Your task to perform on an android device: check the backup settings in the google photos Image 0: 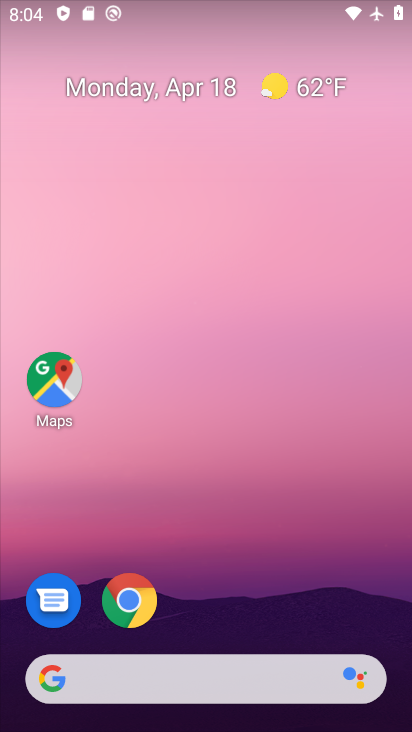
Step 0: drag from (220, 648) to (179, 90)
Your task to perform on an android device: check the backup settings in the google photos Image 1: 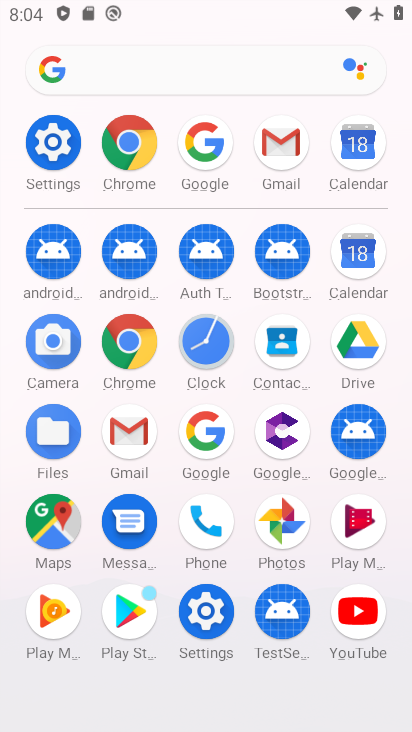
Step 1: click (271, 525)
Your task to perform on an android device: check the backup settings in the google photos Image 2: 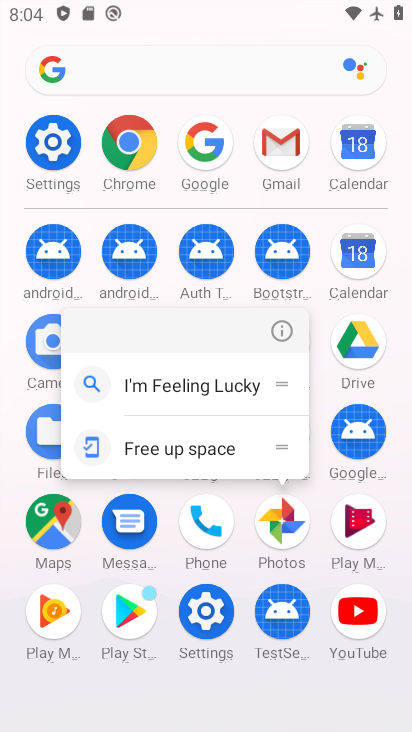
Step 2: click (274, 513)
Your task to perform on an android device: check the backup settings in the google photos Image 3: 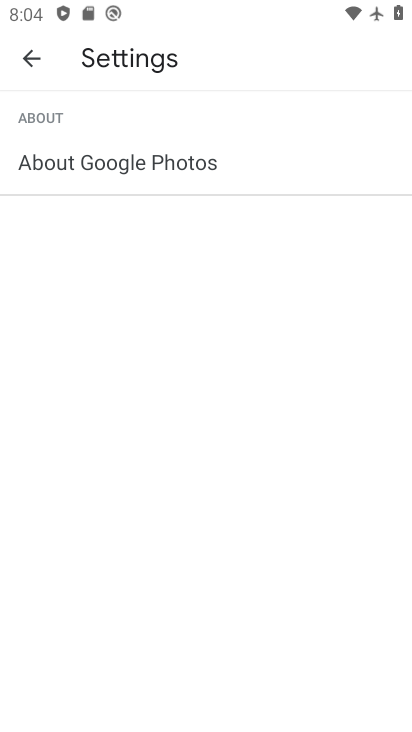
Step 3: click (25, 53)
Your task to perform on an android device: check the backup settings in the google photos Image 4: 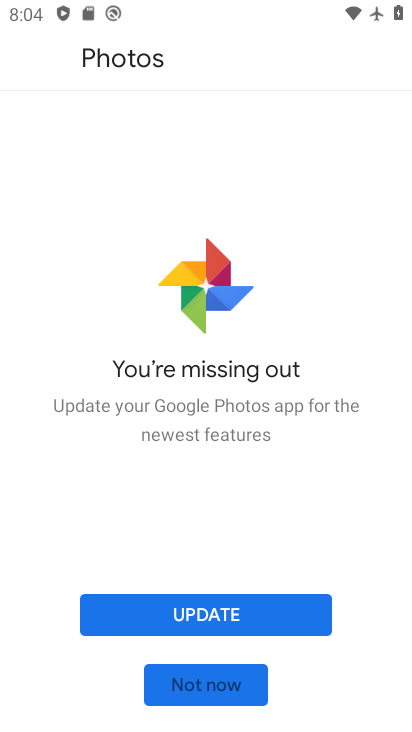
Step 4: click (212, 684)
Your task to perform on an android device: check the backup settings in the google photos Image 5: 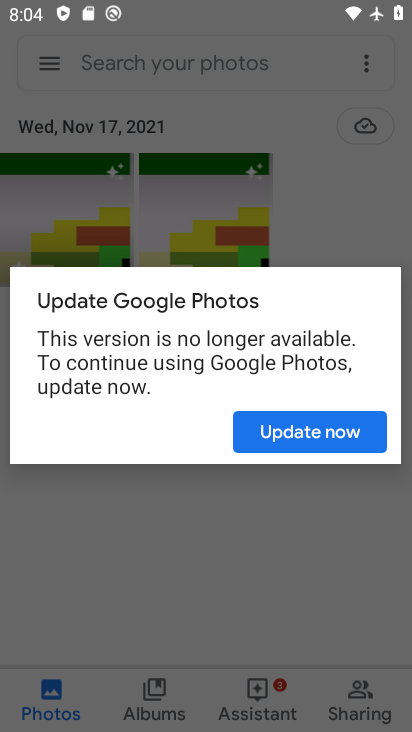
Step 5: click (253, 524)
Your task to perform on an android device: check the backup settings in the google photos Image 6: 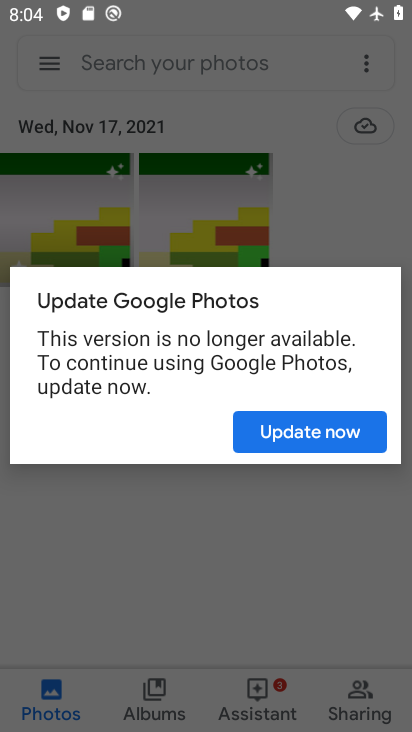
Step 6: click (278, 433)
Your task to perform on an android device: check the backup settings in the google photos Image 7: 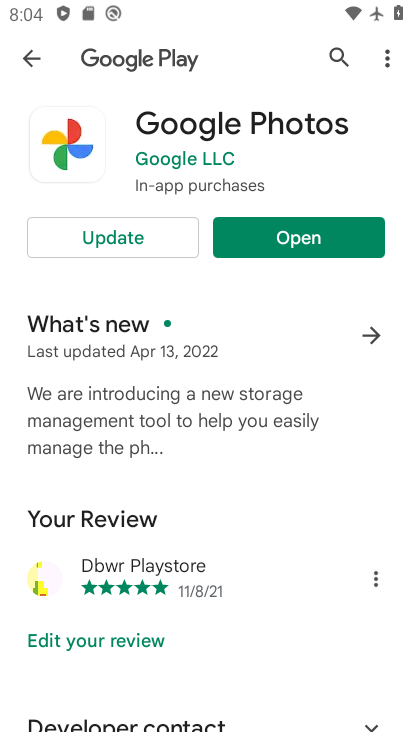
Step 7: click (146, 234)
Your task to perform on an android device: check the backup settings in the google photos Image 8: 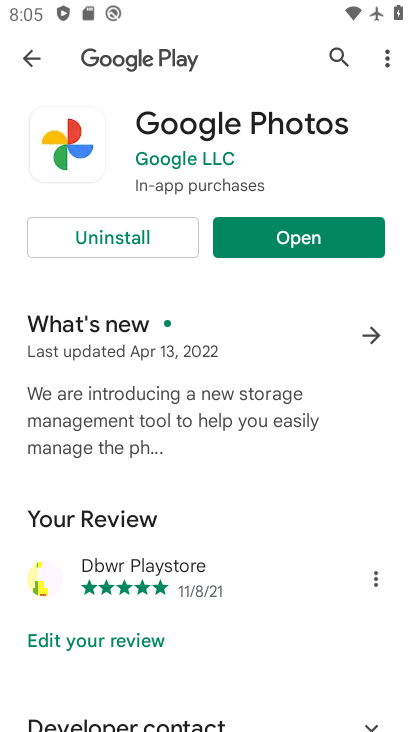
Step 8: click (317, 223)
Your task to perform on an android device: check the backup settings in the google photos Image 9: 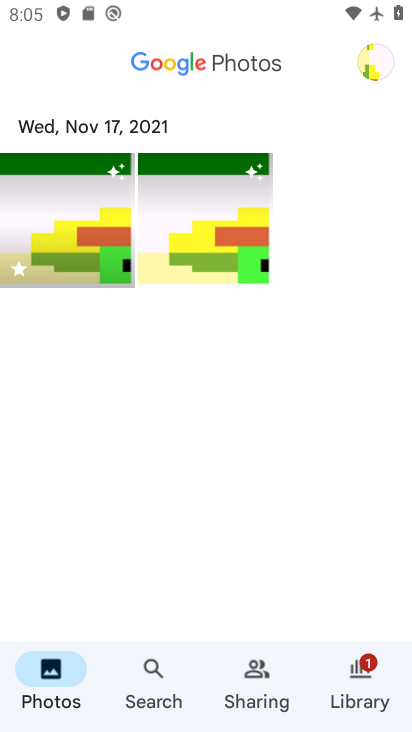
Step 9: click (373, 54)
Your task to perform on an android device: check the backup settings in the google photos Image 10: 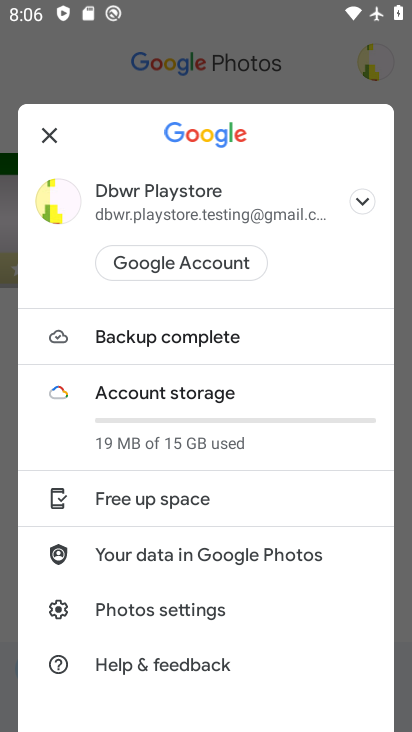
Step 10: click (143, 597)
Your task to perform on an android device: check the backup settings in the google photos Image 11: 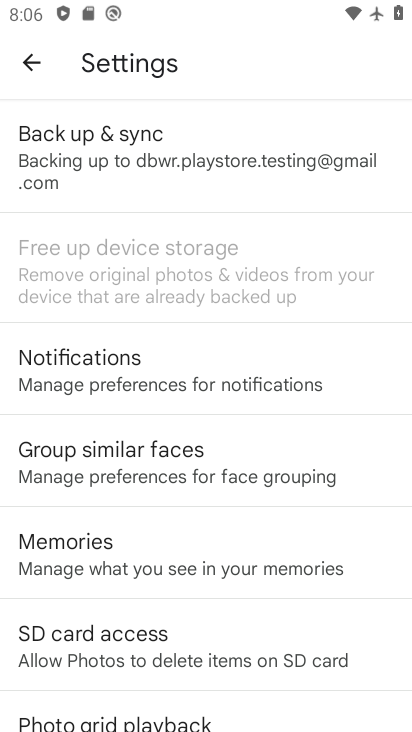
Step 11: click (126, 144)
Your task to perform on an android device: check the backup settings in the google photos Image 12: 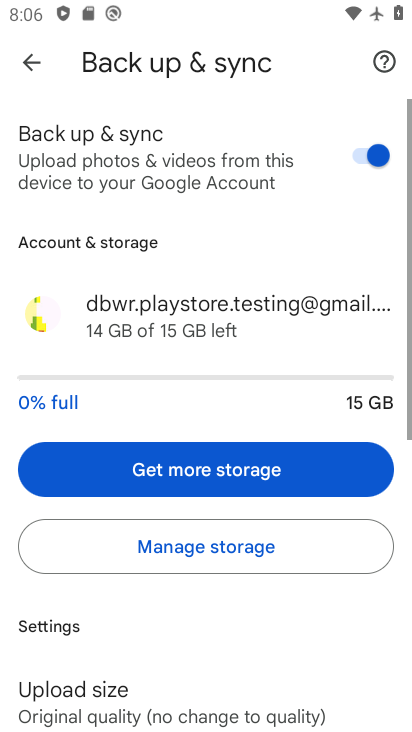
Step 12: task complete